Your task to perform on an android device: How much does the new iPad cost? Image 0: 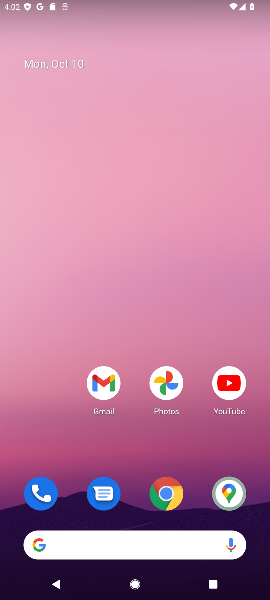
Step 0: click (123, 538)
Your task to perform on an android device: How much does the new iPad cost? Image 1: 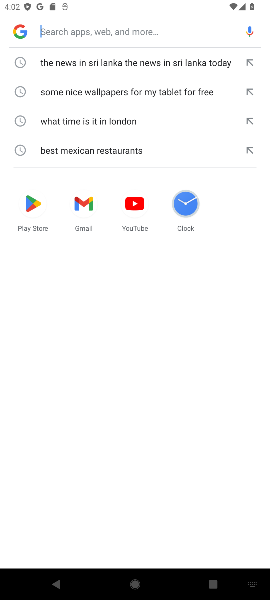
Step 1: type "How much does the new iPad cost?"
Your task to perform on an android device: How much does the new iPad cost? Image 2: 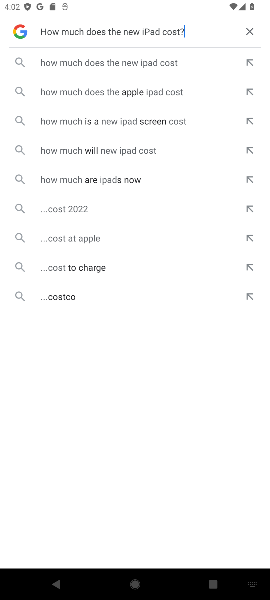
Step 2: click (165, 54)
Your task to perform on an android device: How much does the new iPad cost? Image 3: 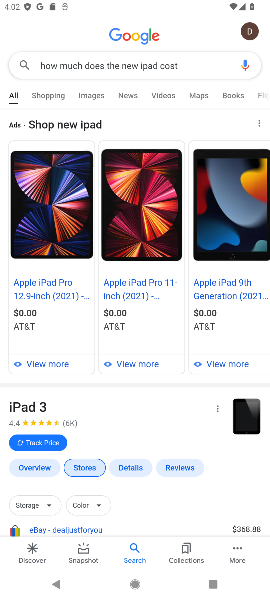
Step 3: task complete